Your task to perform on an android device: Go to Reddit.com Image 0: 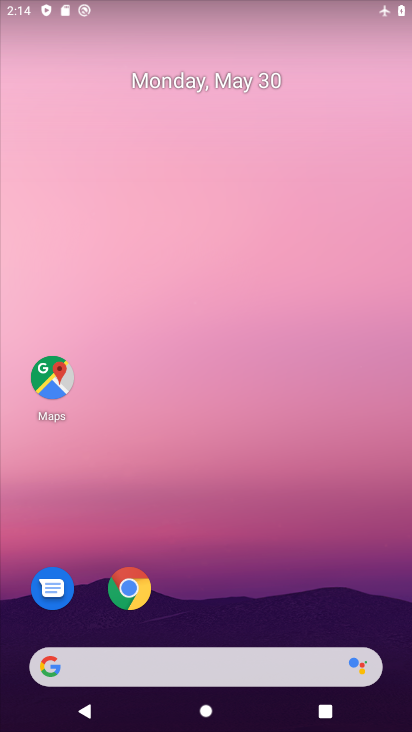
Step 0: click (120, 595)
Your task to perform on an android device: Go to Reddit.com Image 1: 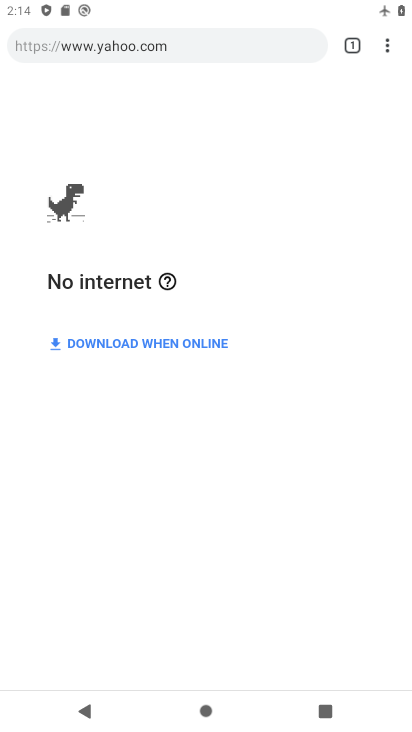
Step 1: click (392, 44)
Your task to perform on an android device: Go to Reddit.com Image 2: 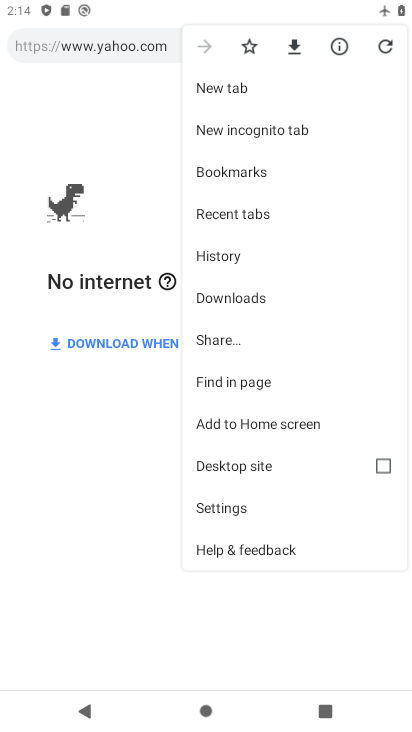
Step 2: click (209, 93)
Your task to perform on an android device: Go to Reddit.com Image 3: 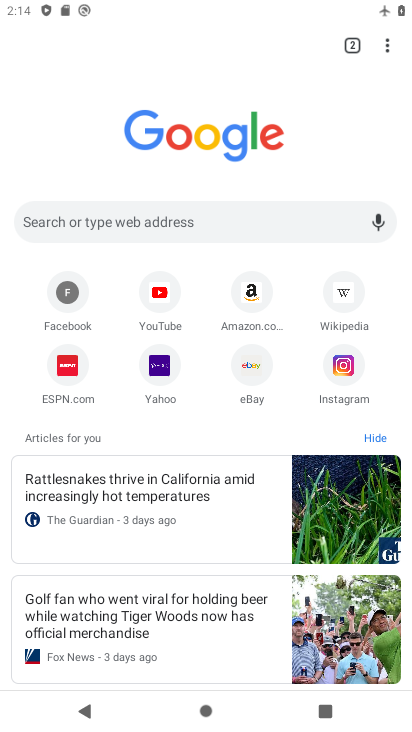
Step 3: click (259, 223)
Your task to perform on an android device: Go to Reddit.com Image 4: 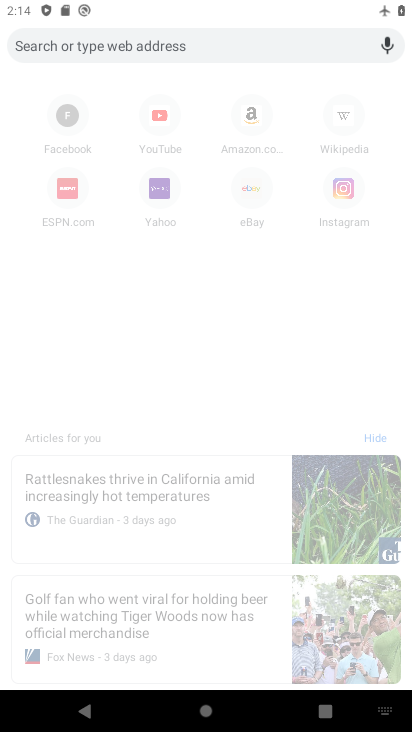
Step 4: type " Reddit.com"
Your task to perform on an android device: Go to Reddit.com Image 5: 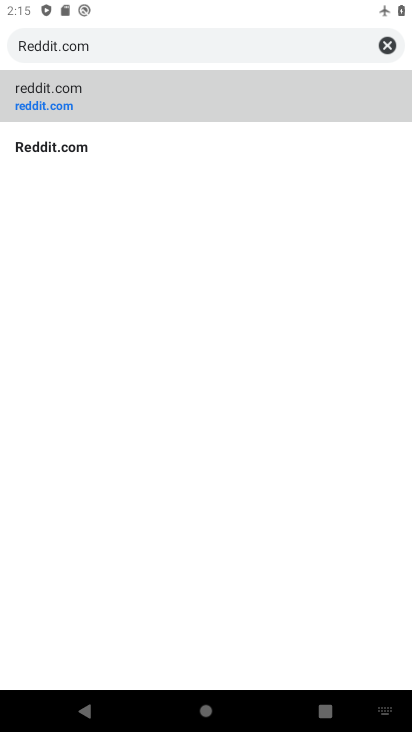
Step 5: click (123, 99)
Your task to perform on an android device: Go to Reddit.com Image 6: 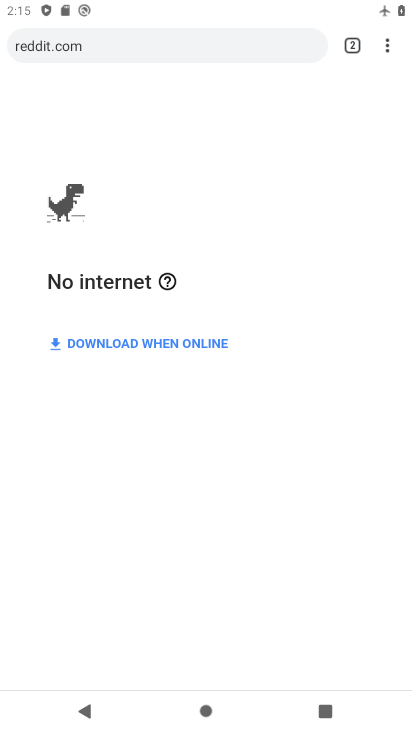
Step 6: task complete